Your task to perform on an android device: View the shopping cart on amazon.com. Add razer thresher to the cart on amazon.com, then select checkout. Image 0: 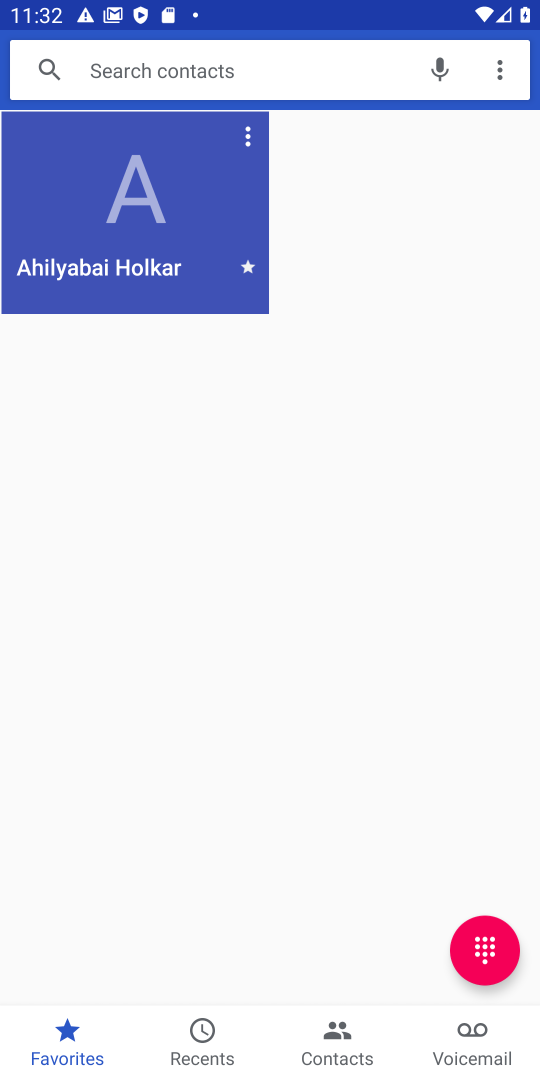
Step 0: press home button
Your task to perform on an android device: View the shopping cart on amazon.com. Add razer thresher to the cart on amazon.com, then select checkout. Image 1: 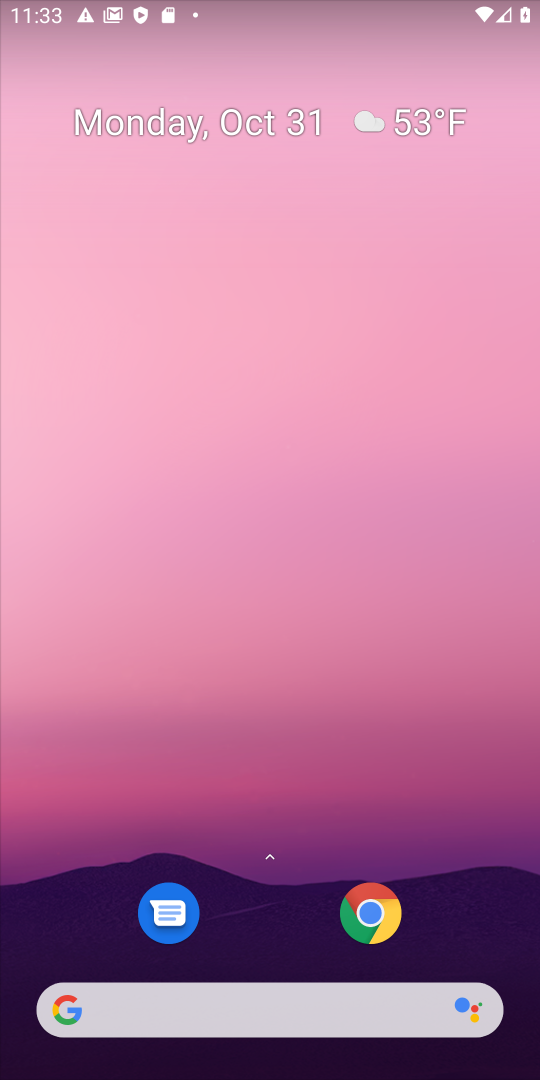
Step 1: click (306, 992)
Your task to perform on an android device: View the shopping cart on amazon.com. Add razer thresher to the cart on amazon.com, then select checkout. Image 2: 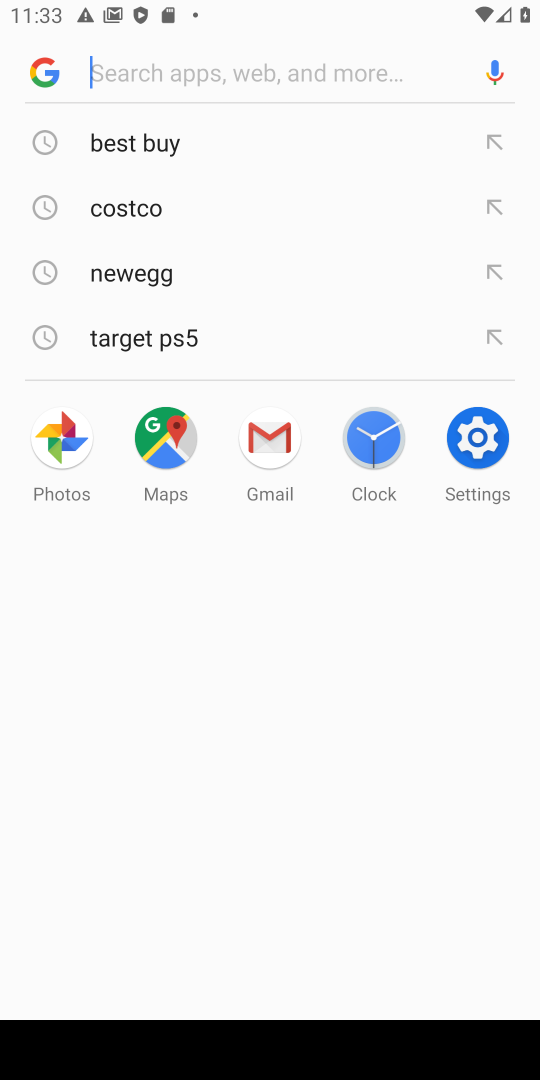
Step 2: type "amazon"
Your task to perform on an android device: View the shopping cart on amazon.com. Add razer thresher to the cart on amazon.com, then select checkout. Image 3: 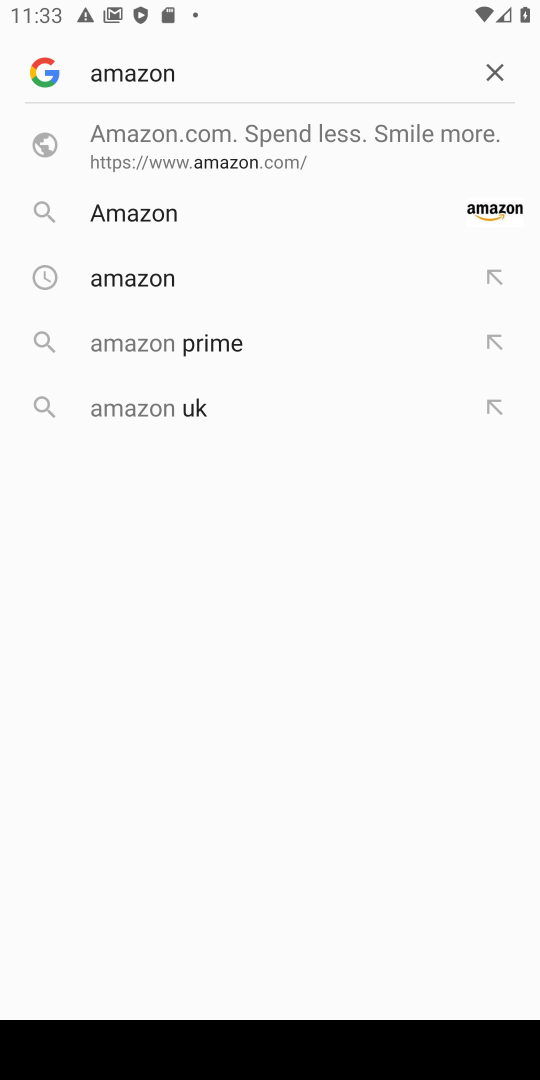
Step 3: click (321, 153)
Your task to perform on an android device: View the shopping cart on amazon.com. Add razer thresher to the cart on amazon.com, then select checkout. Image 4: 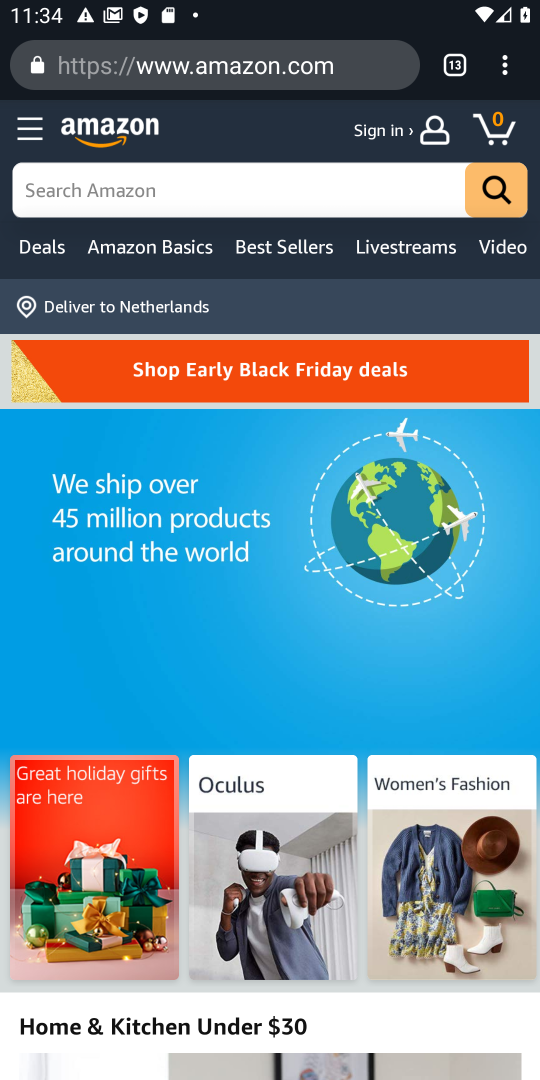
Step 4: click (260, 204)
Your task to perform on an android device: View the shopping cart on amazon.com. Add razer thresher to the cart on amazon.com, then select checkout. Image 5: 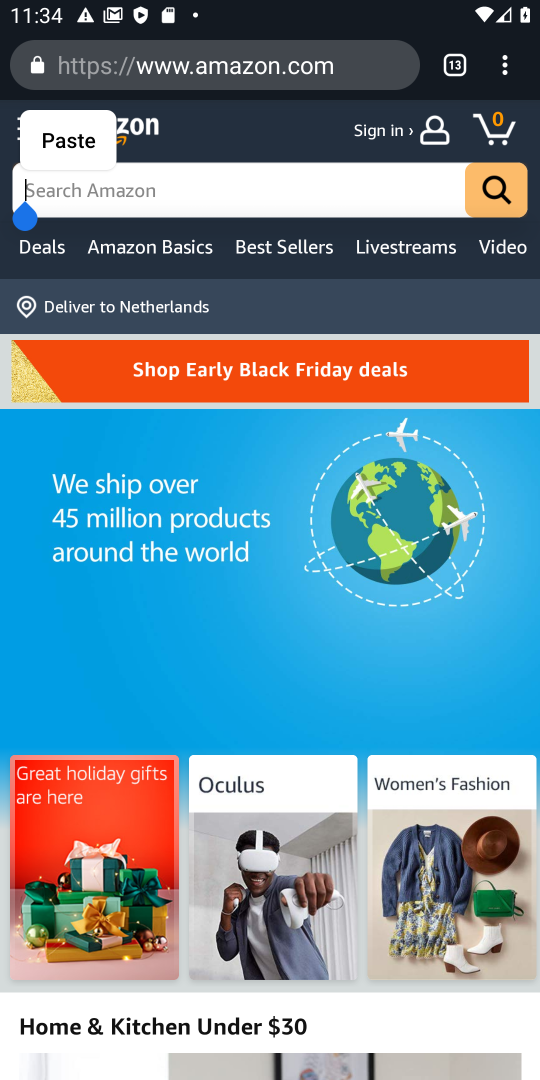
Step 5: type "razer thrasher"
Your task to perform on an android device: View the shopping cart on amazon.com. Add razer thresher to the cart on amazon.com, then select checkout. Image 6: 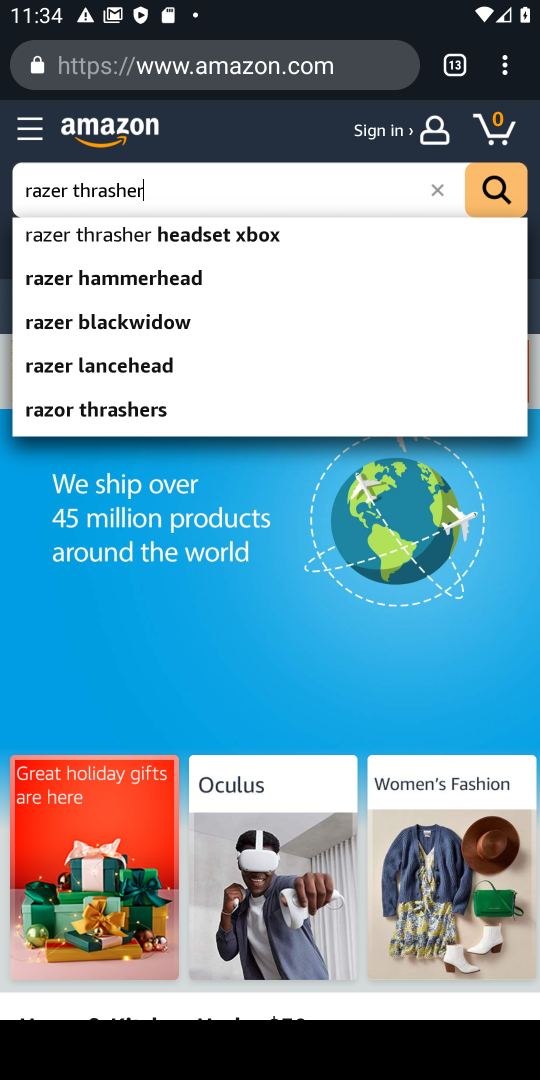
Step 6: click (240, 245)
Your task to perform on an android device: View the shopping cart on amazon.com. Add razer thresher to the cart on amazon.com, then select checkout. Image 7: 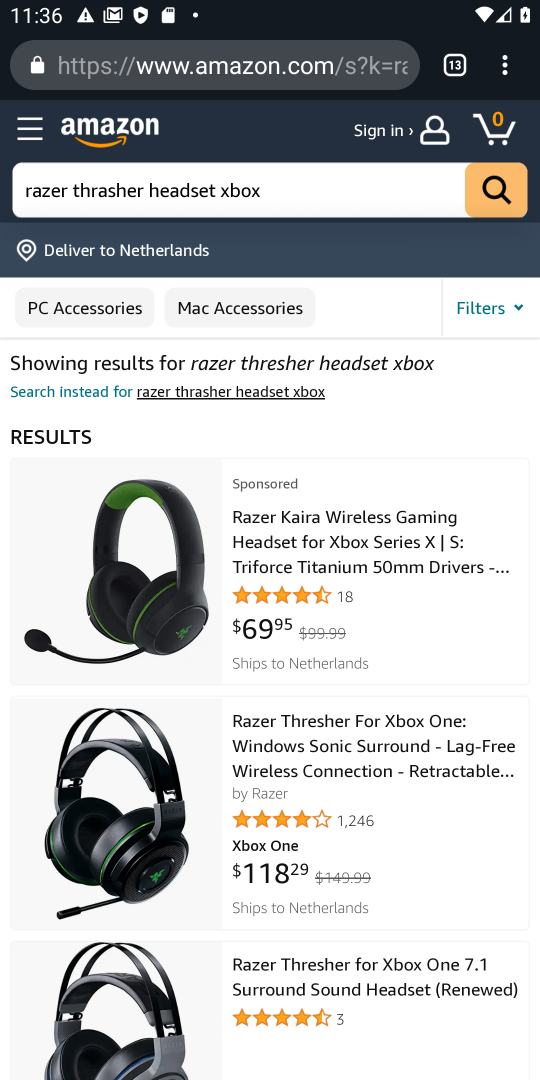
Step 7: click (271, 581)
Your task to perform on an android device: View the shopping cart on amazon.com. Add razer thresher to the cart on amazon.com, then select checkout. Image 8: 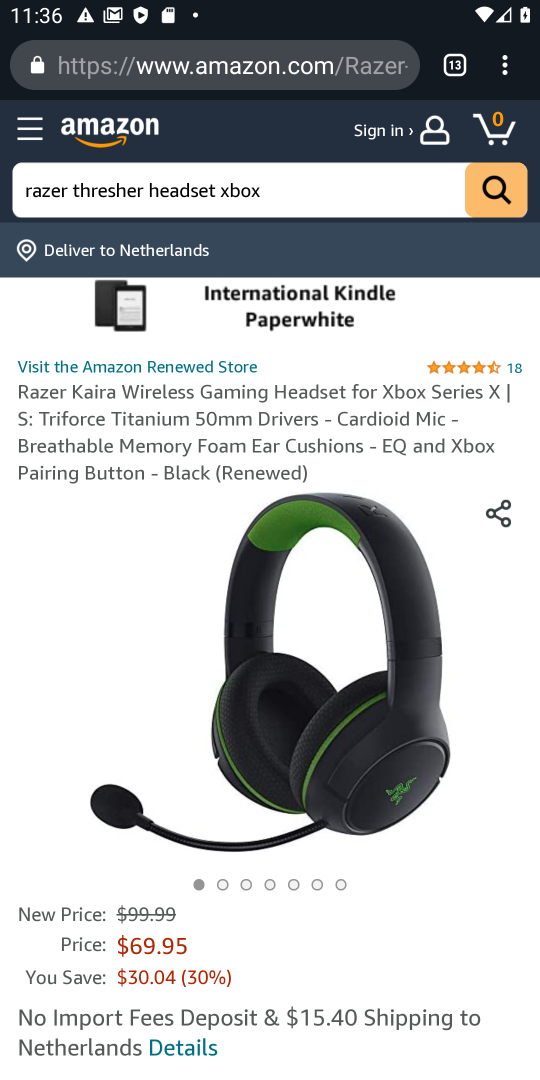
Step 8: drag from (286, 673) to (307, 430)
Your task to perform on an android device: View the shopping cart on amazon.com. Add razer thresher to the cart on amazon.com, then select checkout. Image 9: 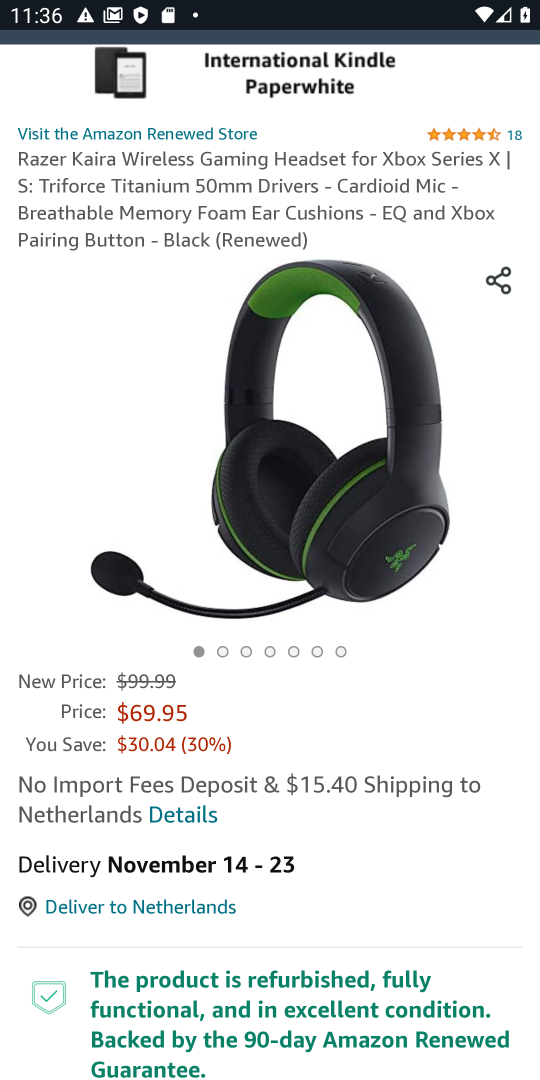
Step 9: drag from (360, 782) to (362, 427)
Your task to perform on an android device: View the shopping cart on amazon.com. Add razer thresher to the cart on amazon.com, then select checkout. Image 10: 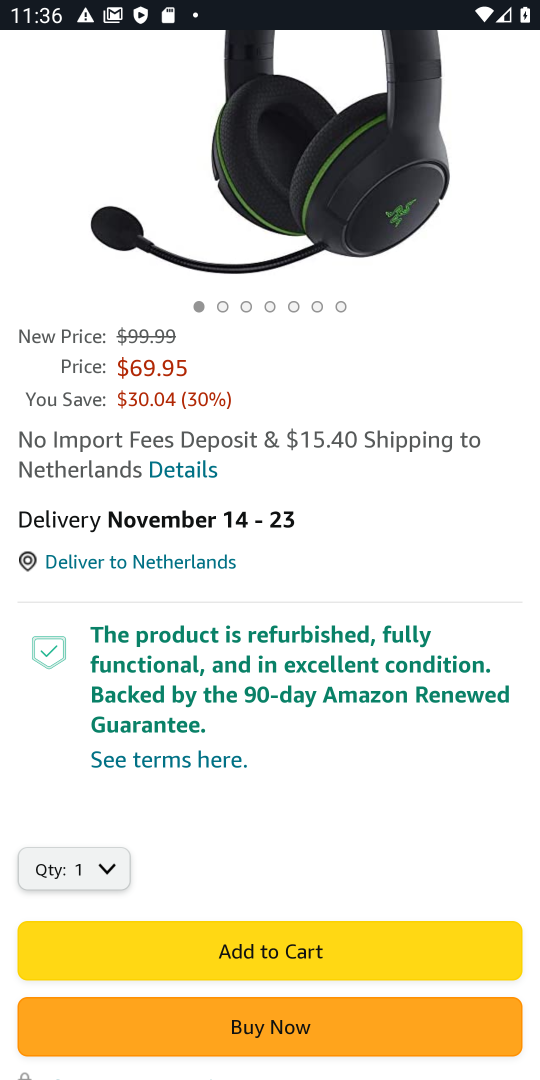
Step 10: click (270, 956)
Your task to perform on an android device: View the shopping cart on amazon.com. Add razer thresher to the cart on amazon.com, then select checkout. Image 11: 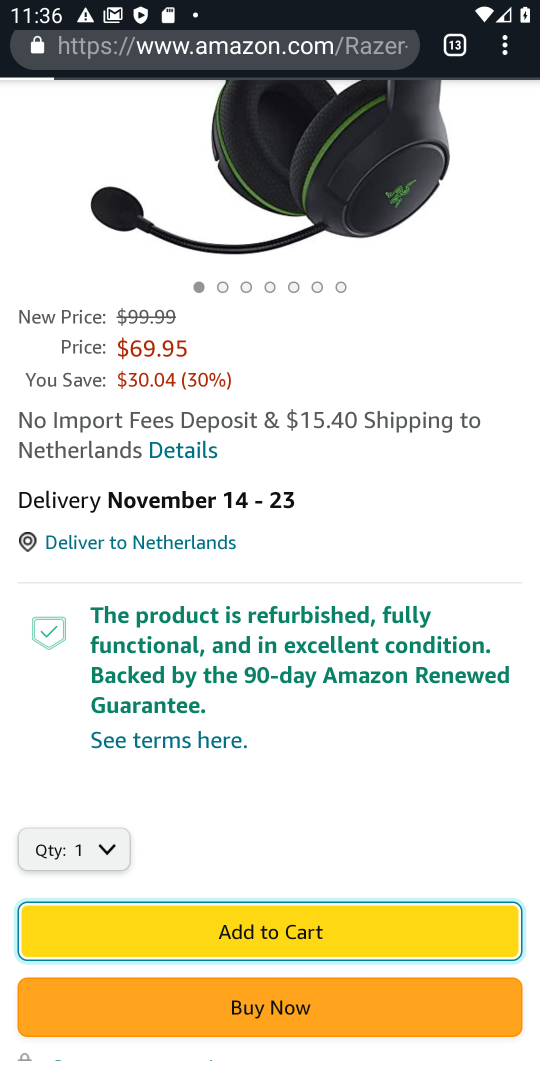
Step 11: task complete